Your task to perform on an android device: turn on translation in the chrome app Image 0: 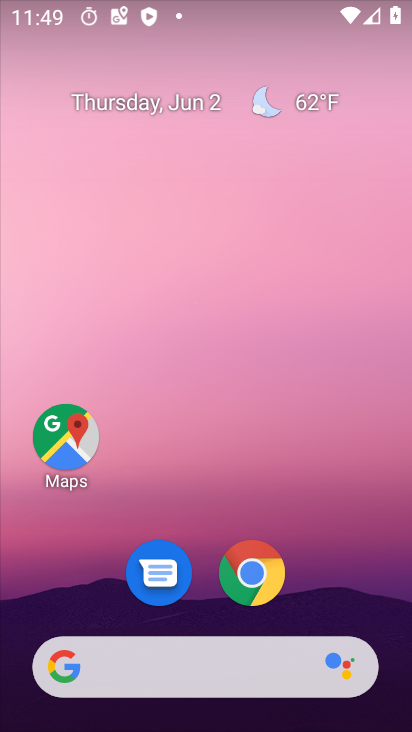
Step 0: drag from (277, 669) to (274, 48)
Your task to perform on an android device: turn on translation in the chrome app Image 1: 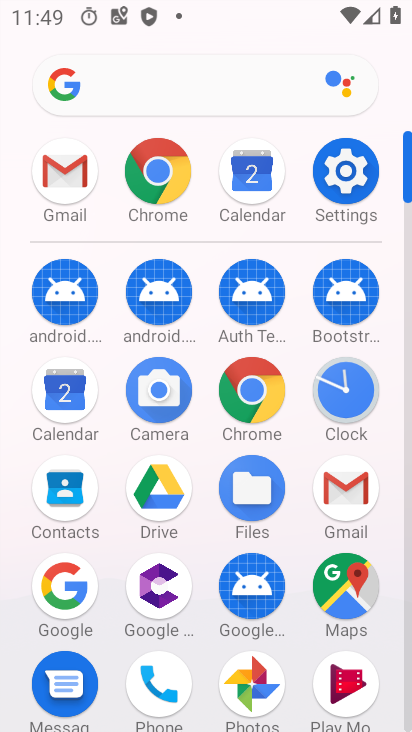
Step 1: click (268, 395)
Your task to perform on an android device: turn on translation in the chrome app Image 2: 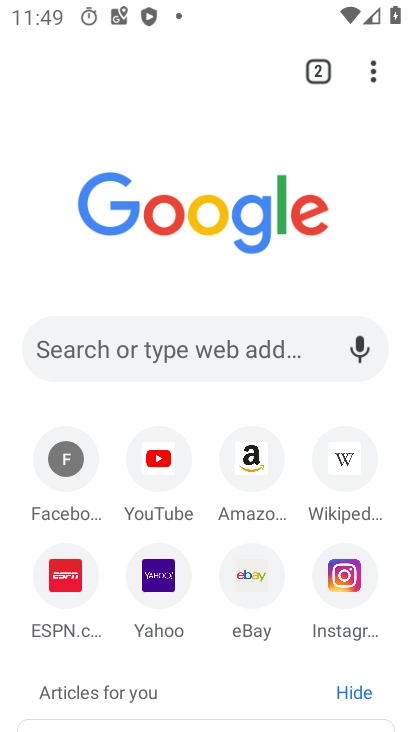
Step 2: drag from (368, 63) to (201, 608)
Your task to perform on an android device: turn on translation in the chrome app Image 3: 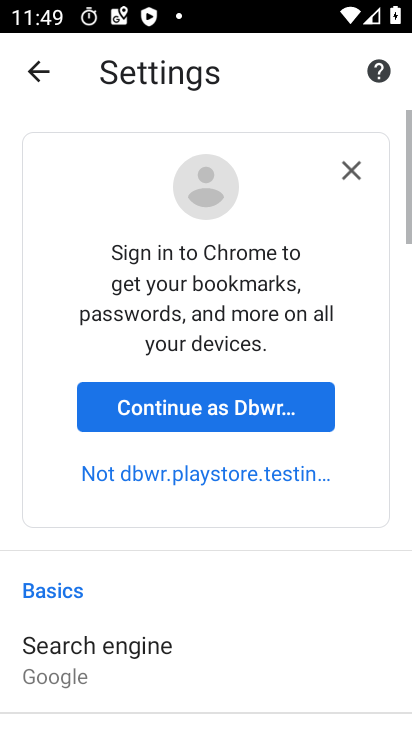
Step 3: drag from (194, 541) to (189, 76)
Your task to perform on an android device: turn on translation in the chrome app Image 4: 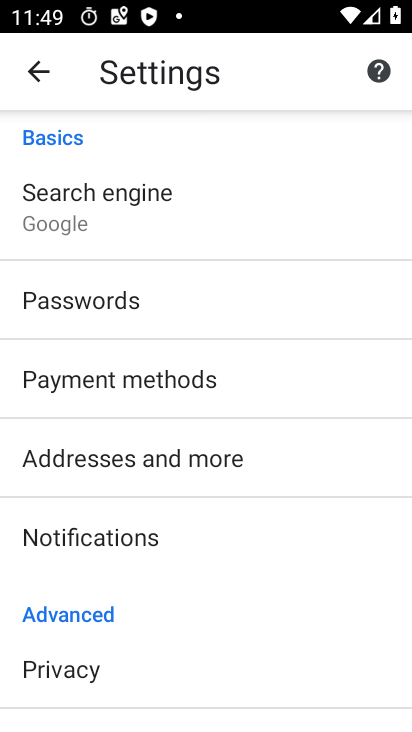
Step 4: drag from (238, 572) to (305, 222)
Your task to perform on an android device: turn on translation in the chrome app Image 5: 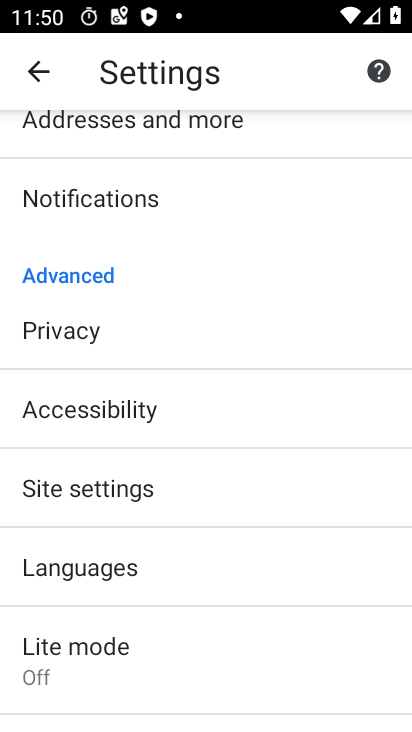
Step 5: click (139, 556)
Your task to perform on an android device: turn on translation in the chrome app Image 6: 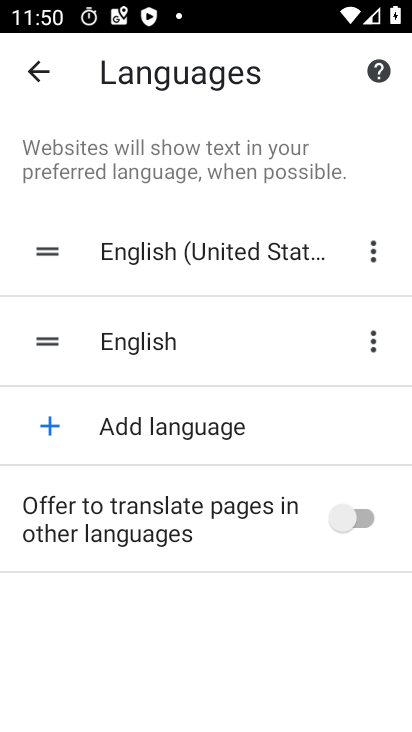
Step 6: click (366, 515)
Your task to perform on an android device: turn on translation in the chrome app Image 7: 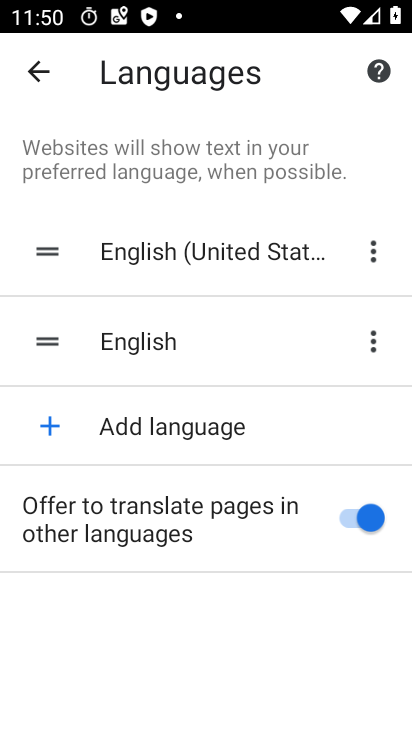
Step 7: task complete